Your task to perform on an android device: open app "Instagram" Image 0: 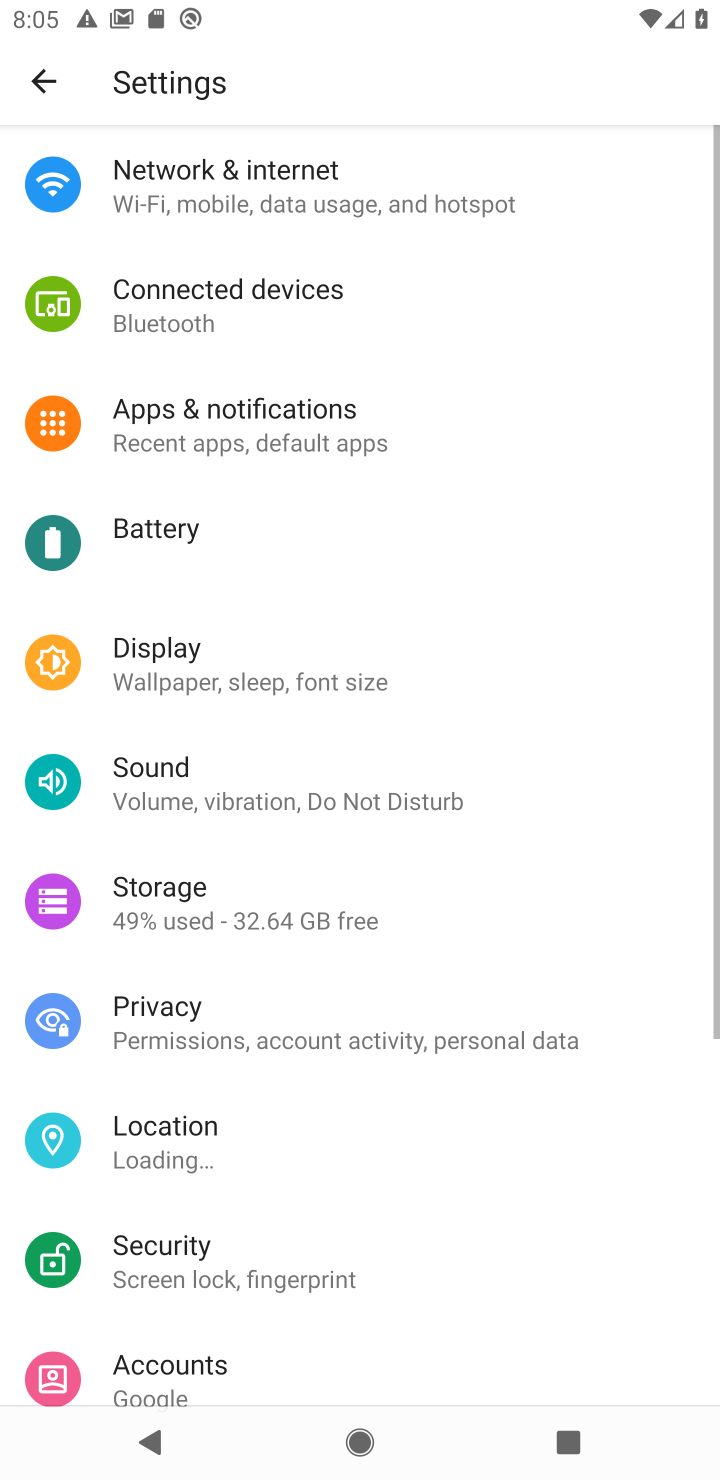
Step 0: press home button
Your task to perform on an android device: open app "Instagram" Image 1: 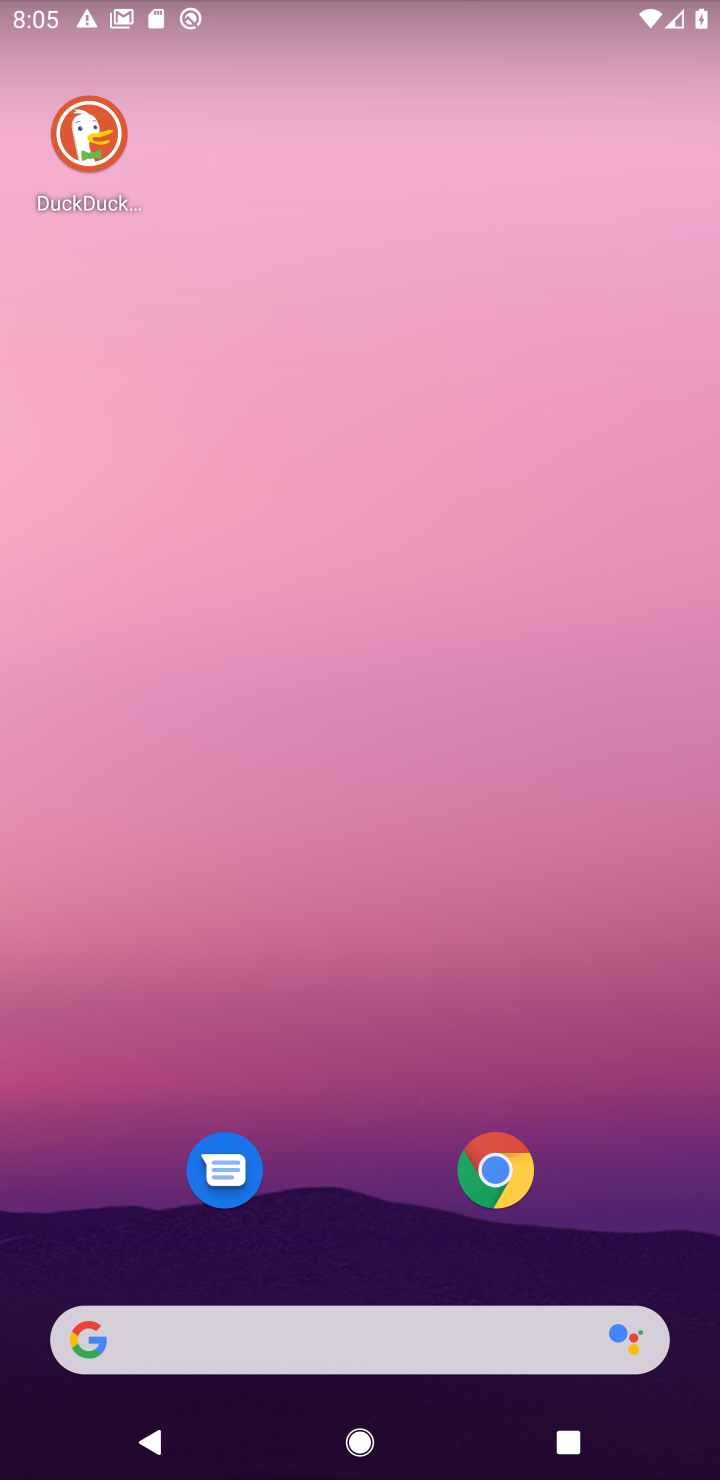
Step 1: drag from (673, 1286) to (493, 195)
Your task to perform on an android device: open app "Instagram" Image 2: 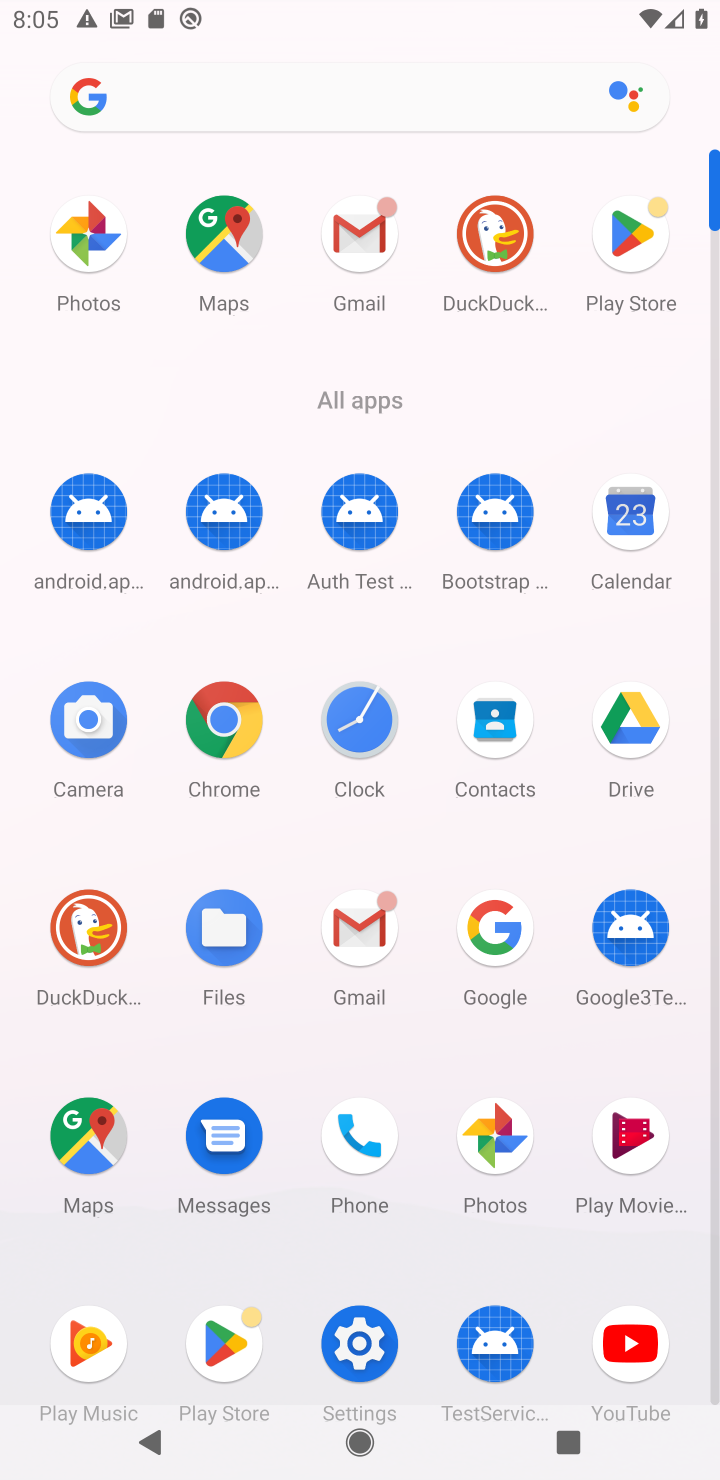
Step 2: click (232, 1344)
Your task to perform on an android device: open app "Instagram" Image 3: 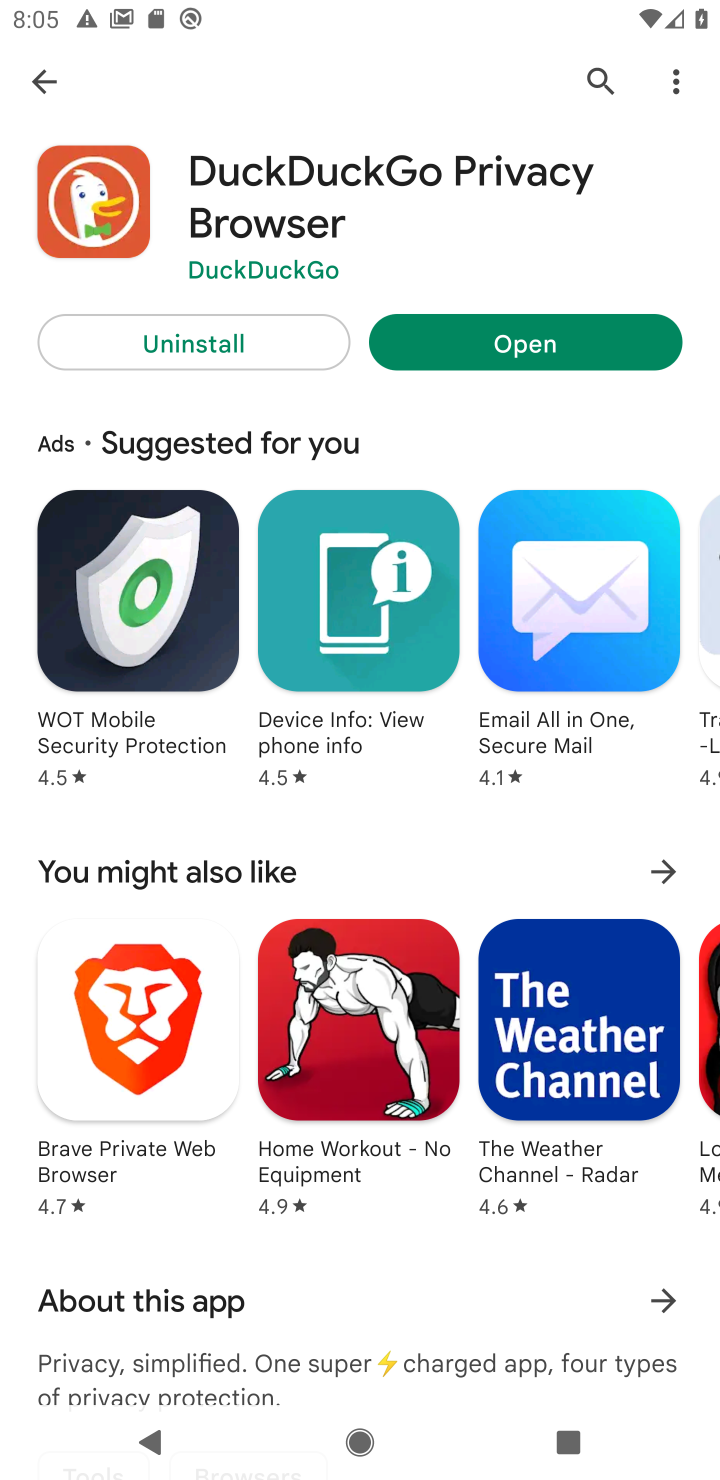
Step 3: click (596, 81)
Your task to perform on an android device: open app "Instagram" Image 4: 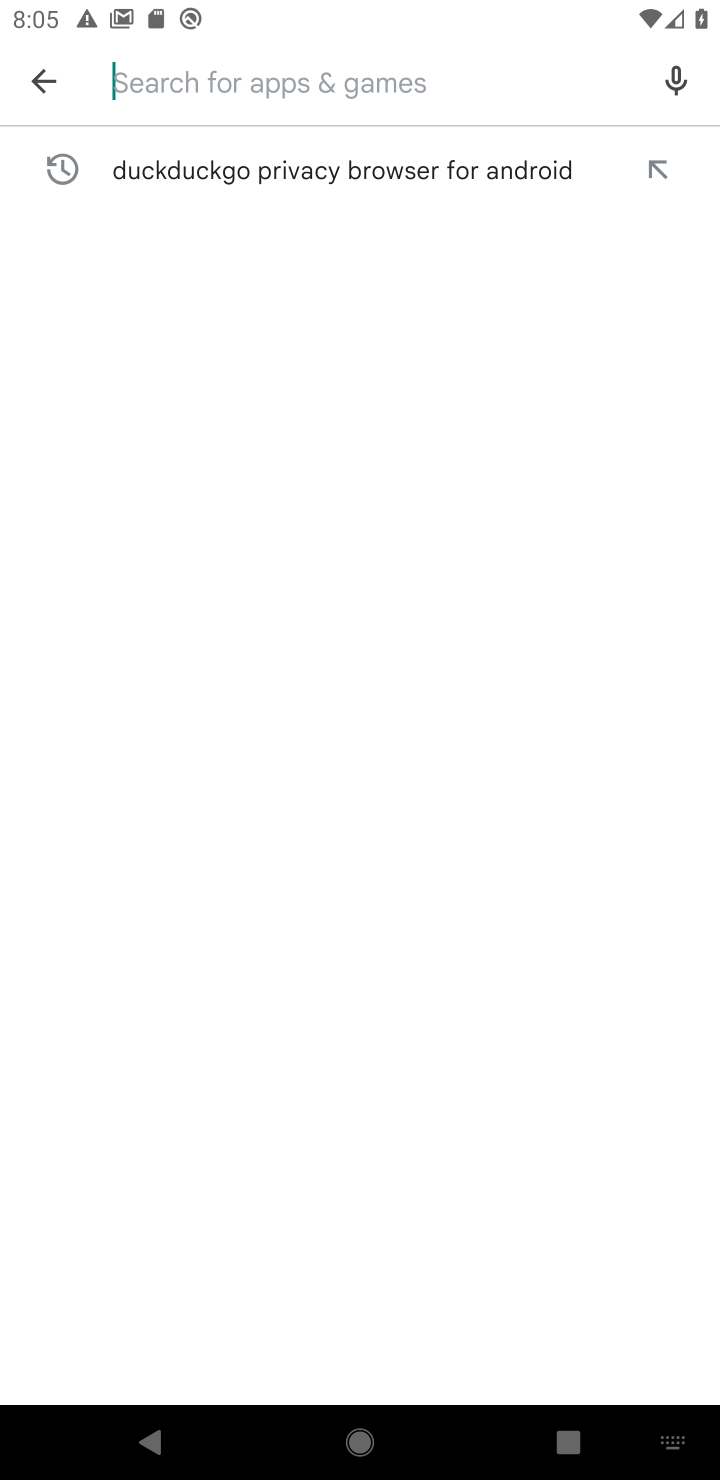
Step 4: type "instagram"
Your task to perform on an android device: open app "Instagram" Image 5: 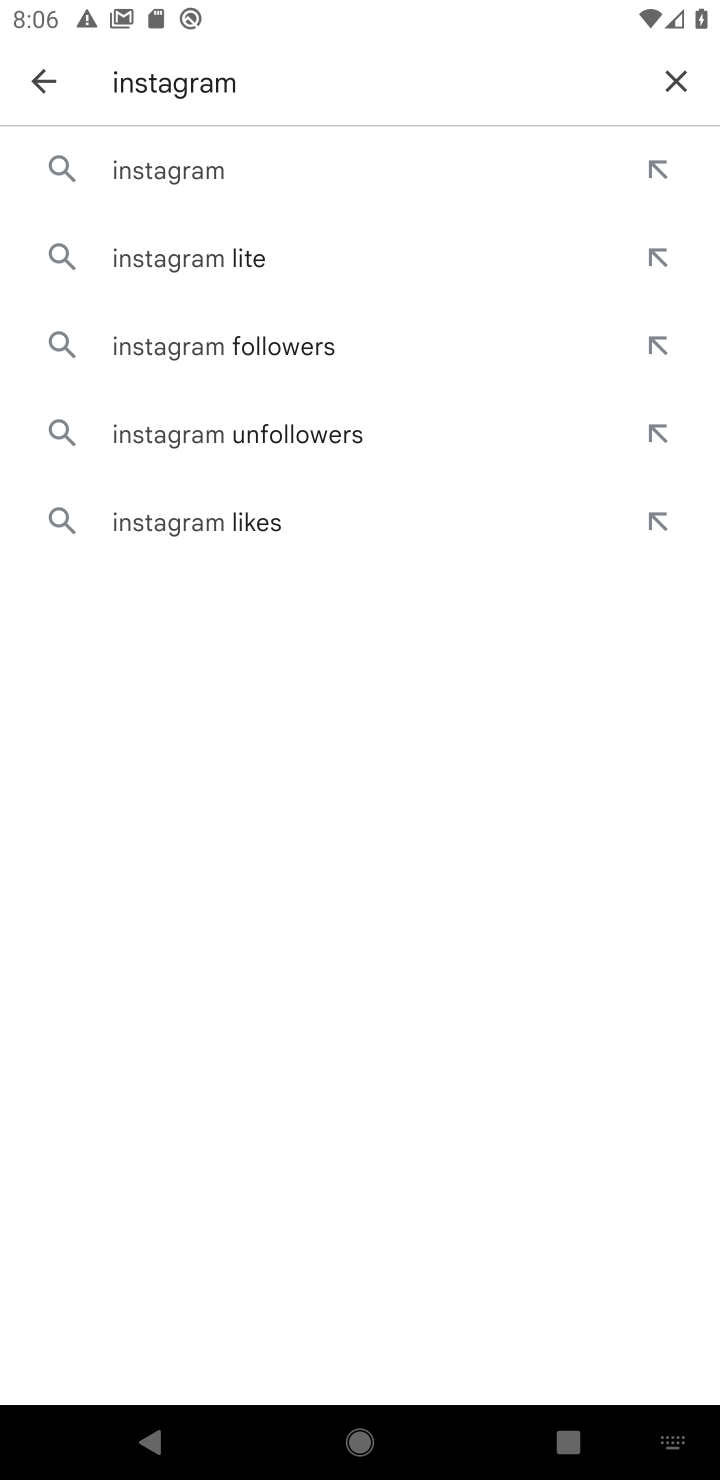
Step 5: click (160, 170)
Your task to perform on an android device: open app "Instagram" Image 6: 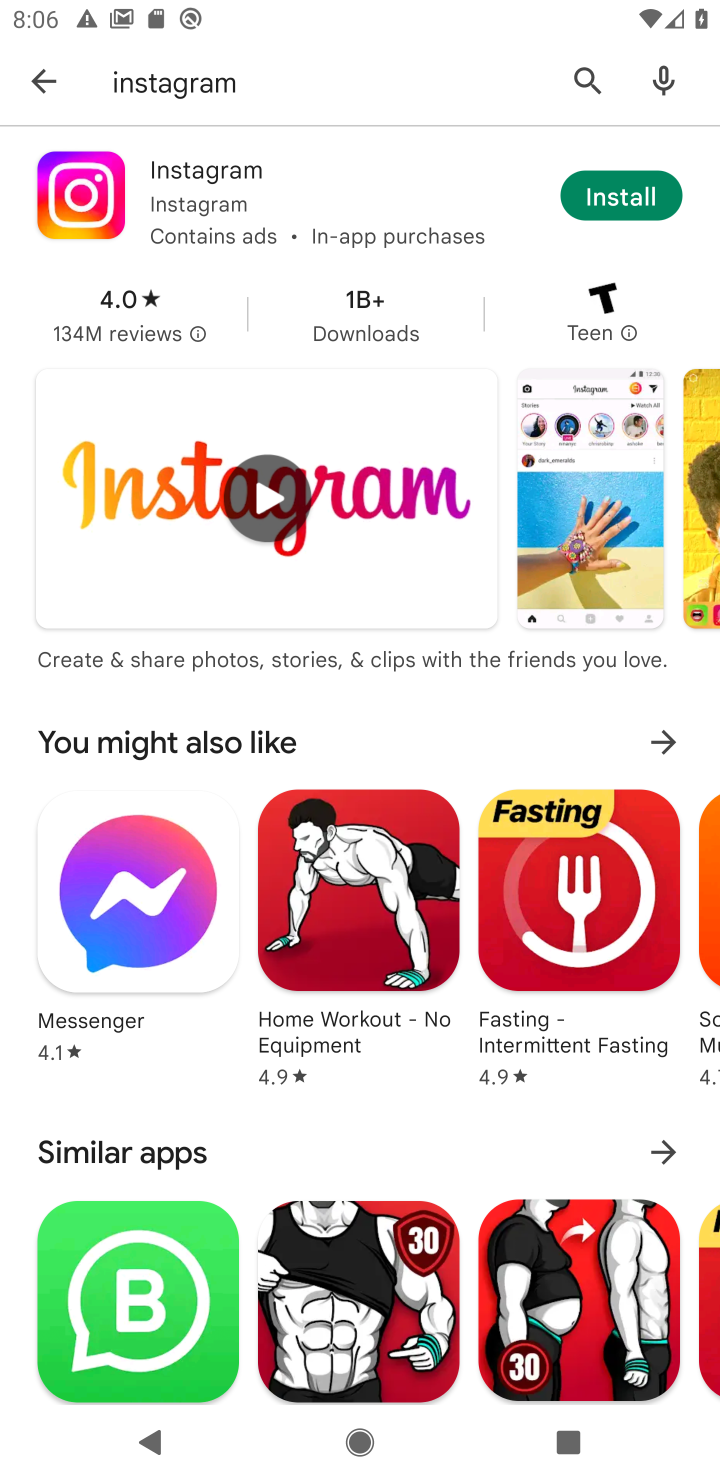
Step 6: task complete